Your task to perform on an android device: What's the weather today? Image 0: 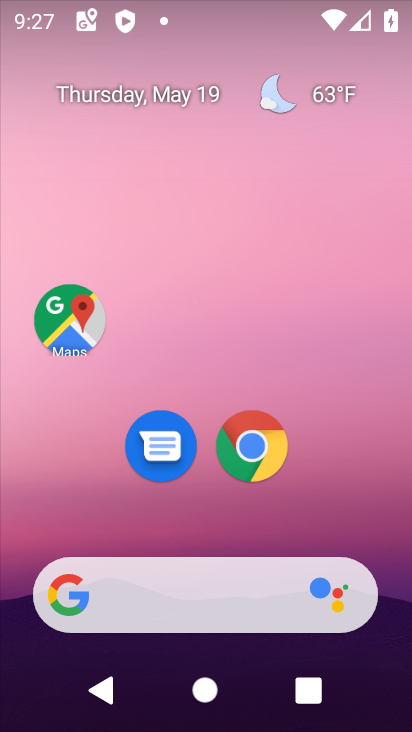
Step 0: click (346, 87)
Your task to perform on an android device: What's the weather today? Image 1: 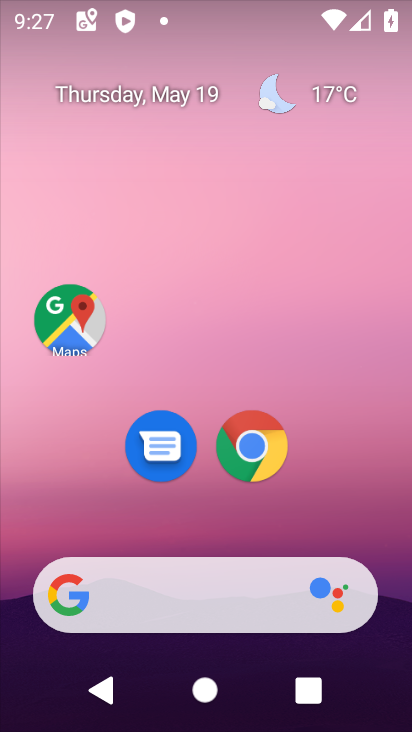
Step 1: click (315, 86)
Your task to perform on an android device: What's the weather today? Image 2: 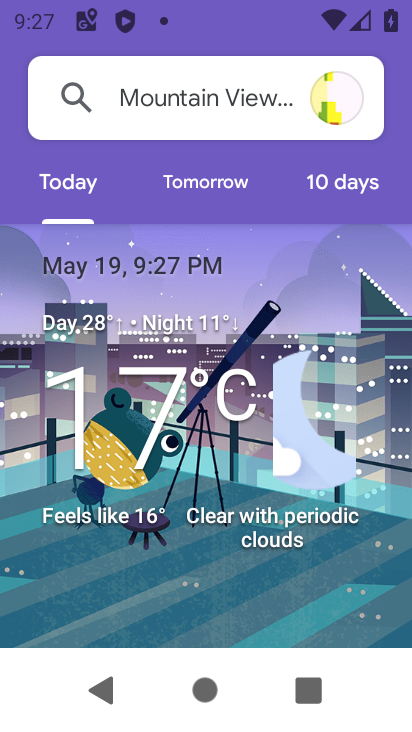
Step 2: task complete